Your task to perform on an android device: install app "LiveIn - Share Your Moment" Image 0: 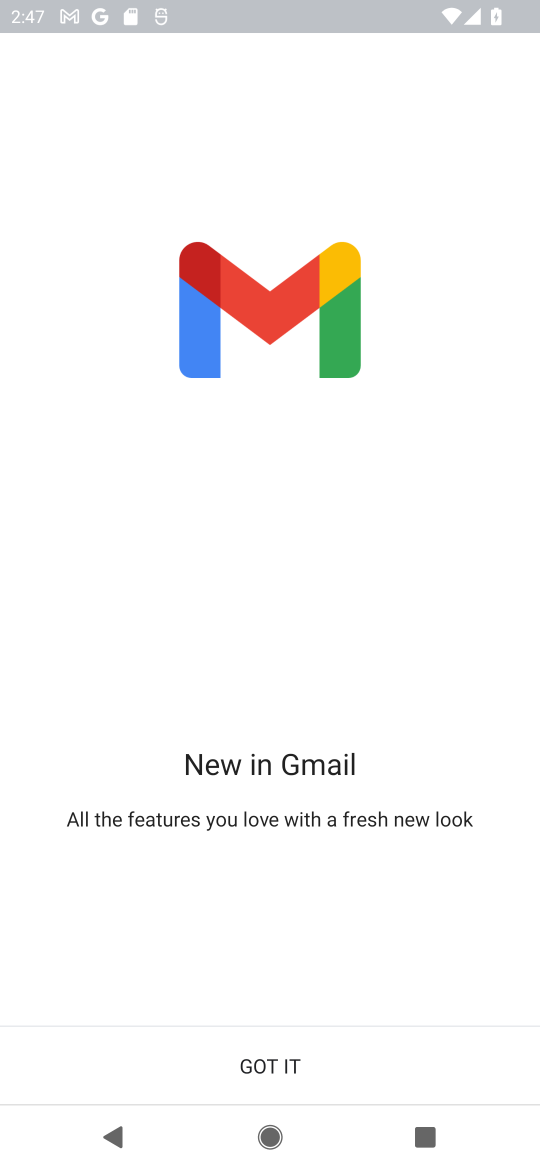
Step 0: press home button
Your task to perform on an android device: install app "LiveIn - Share Your Moment" Image 1: 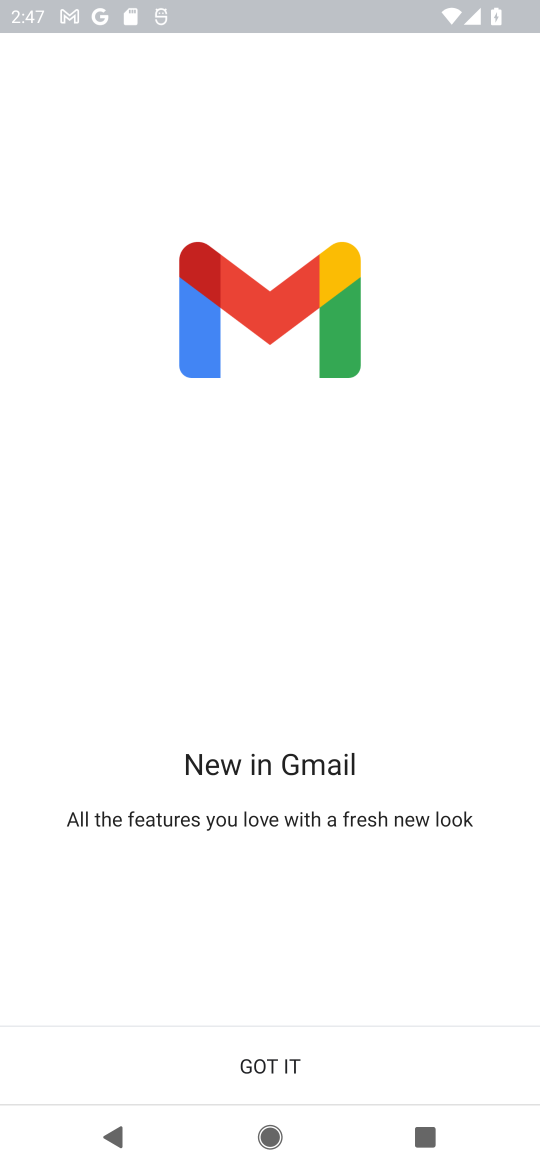
Step 1: press home button
Your task to perform on an android device: install app "LiveIn - Share Your Moment" Image 2: 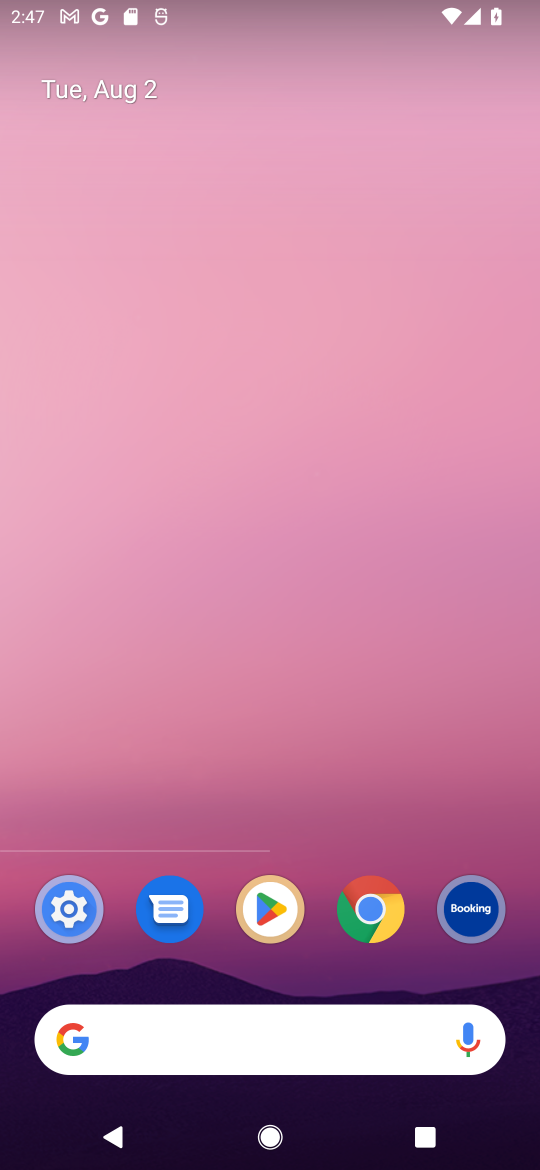
Step 2: drag from (264, 949) to (358, 247)
Your task to perform on an android device: install app "LiveIn - Share Your Moment" Image 3: 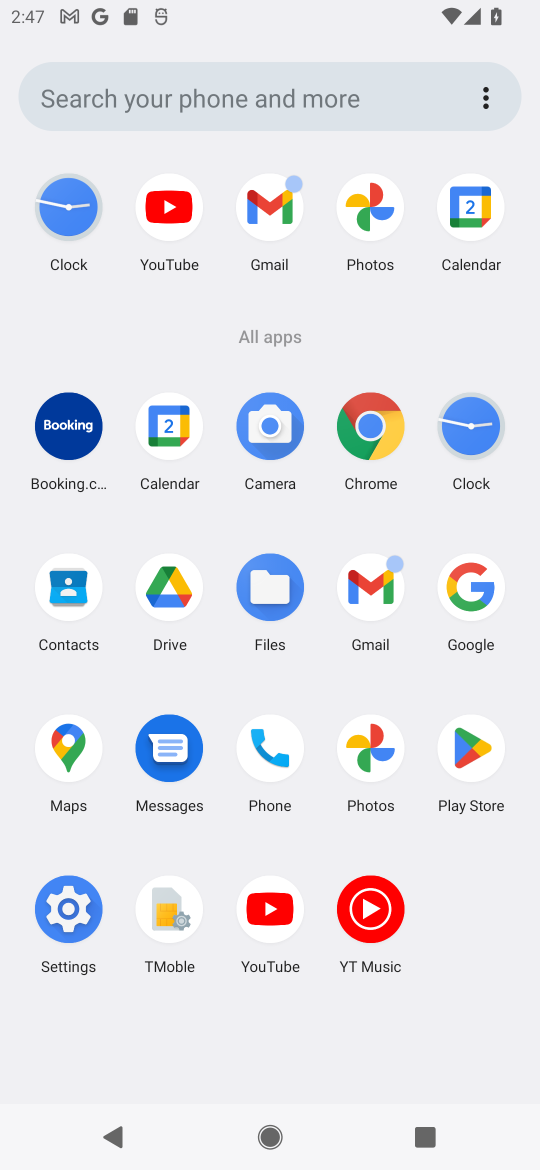
Step 3: click (478, 739)
Your task to perform on an android device: install app "LiveIn - Share Your Moment" Image 4: 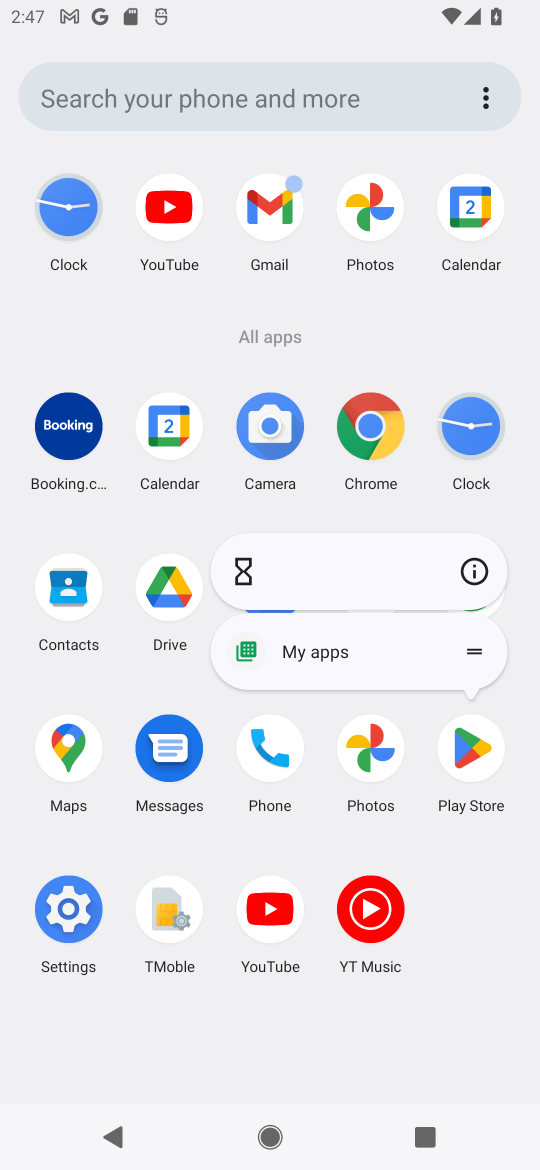
Step 4: click (462, 573)
Your task to perform on an android device: install app "LiveIn - Share Your Moment" Image 5: 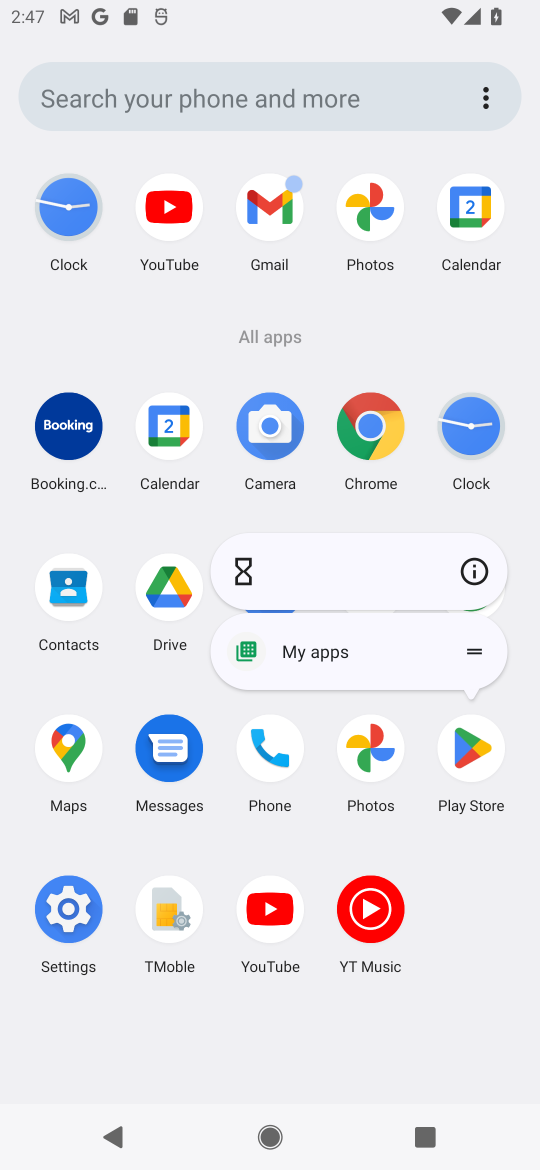
Step 5: click (478, 568)
Your task to perform on an android device: install app "LiveIn - Share Your Moment" Image 6: 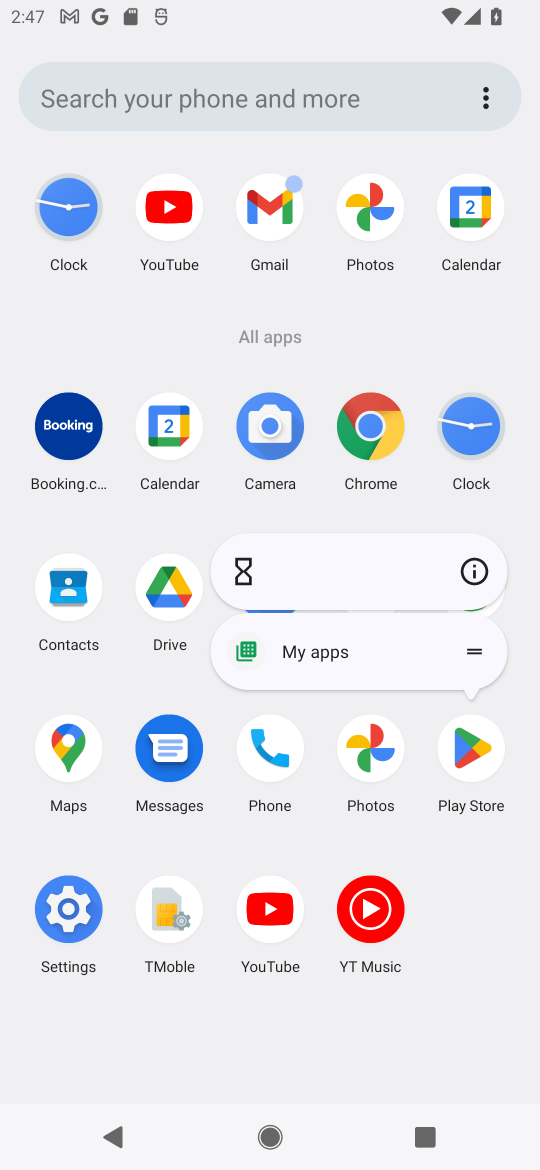
Step 6: click (462, 555)
Your task to perform on an android device: install app "LiveIn - Share Your Moment" Image 7: 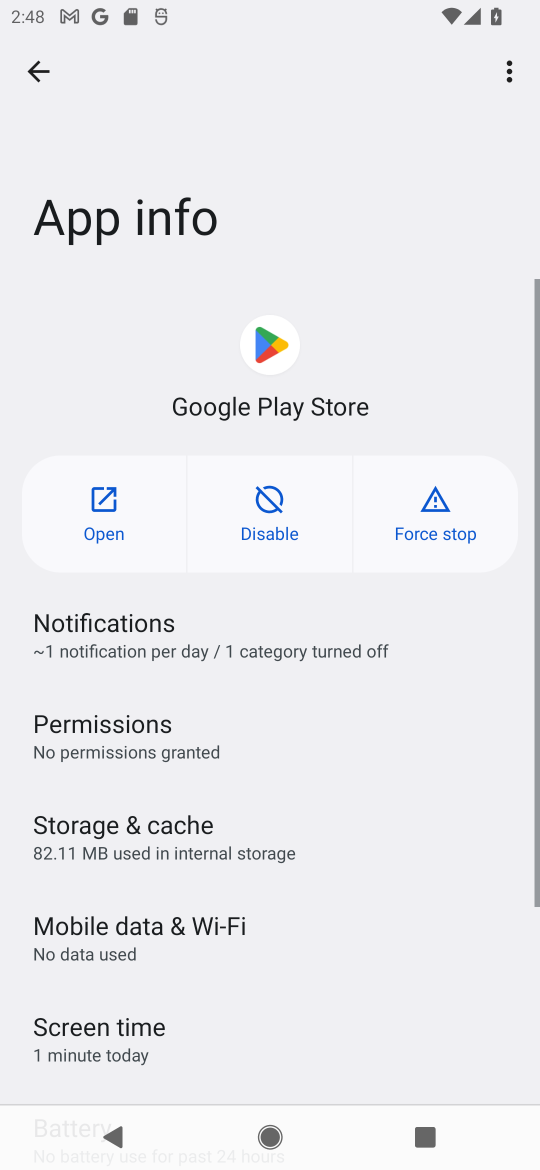
Step 7: click (85, 499)
Your task to perform on an android device: install app "LiveIn - Share Your Moment" Image 8: 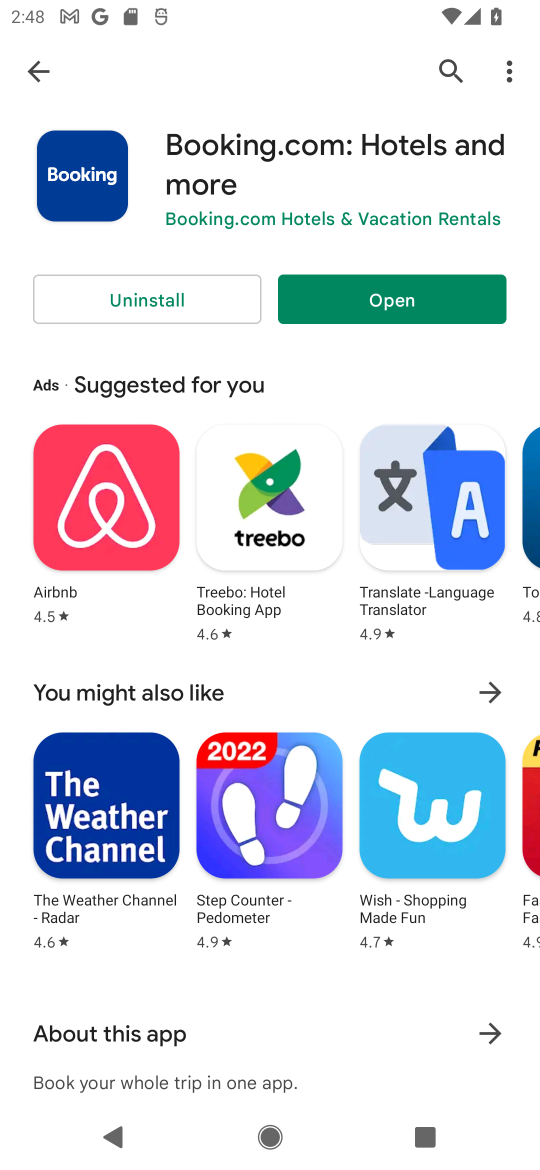
Step 8: click (445, 61)
Your task to perform on an android device: install app "LiveIn - Share Your Moment" Image 9: 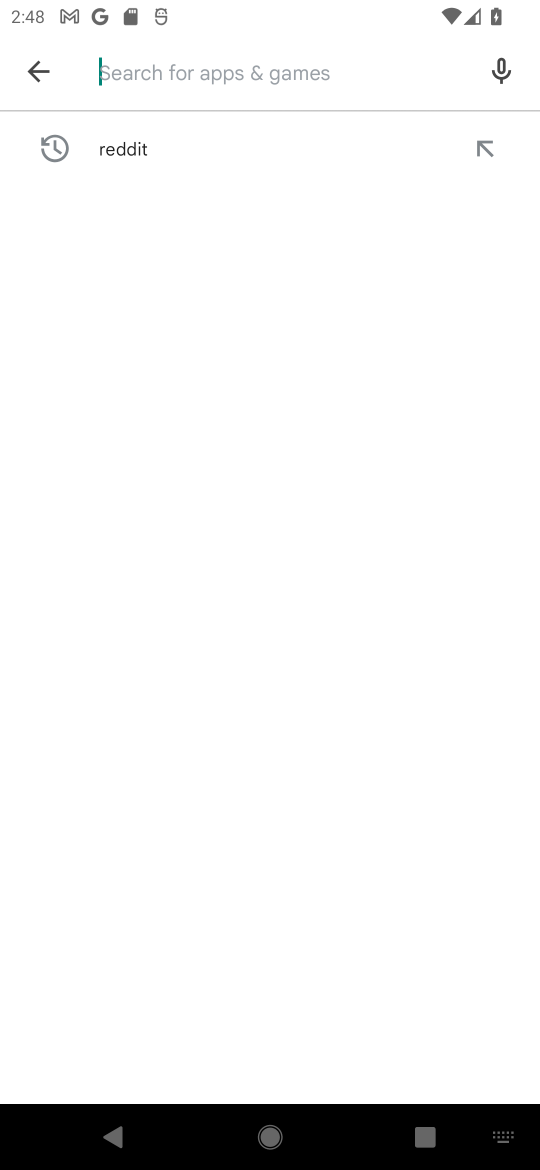
Step 9: type "LiveIn - Share Your Moment"
Your task to perform on an android device: install app "LiveIn - Share Your Moment" Image 10: 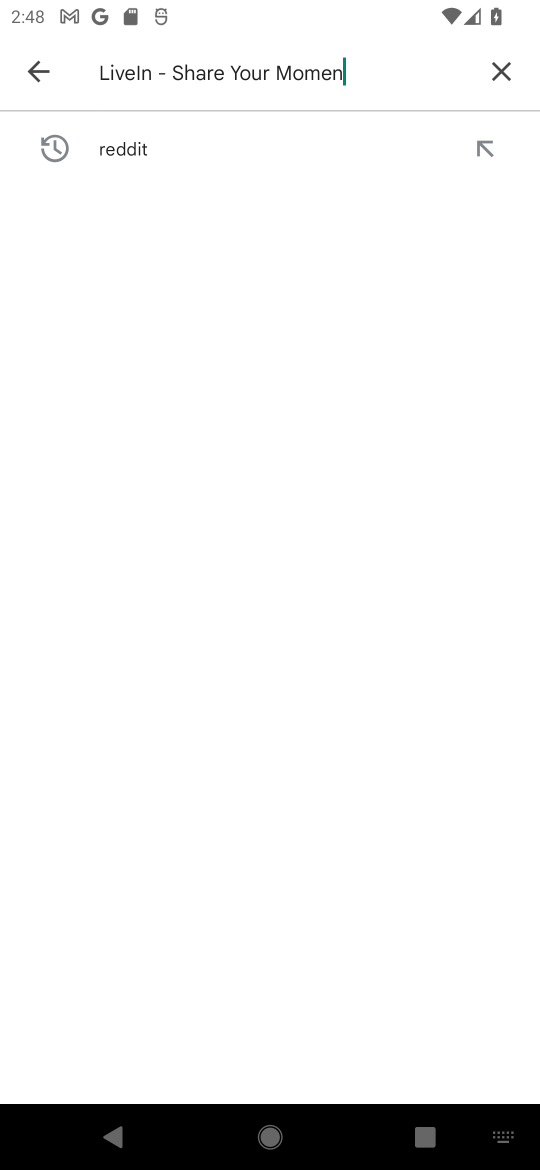
Step 10: type ""
Your task to perform on an android device: install app "LiveIn - Share Your Moment" Image 11: 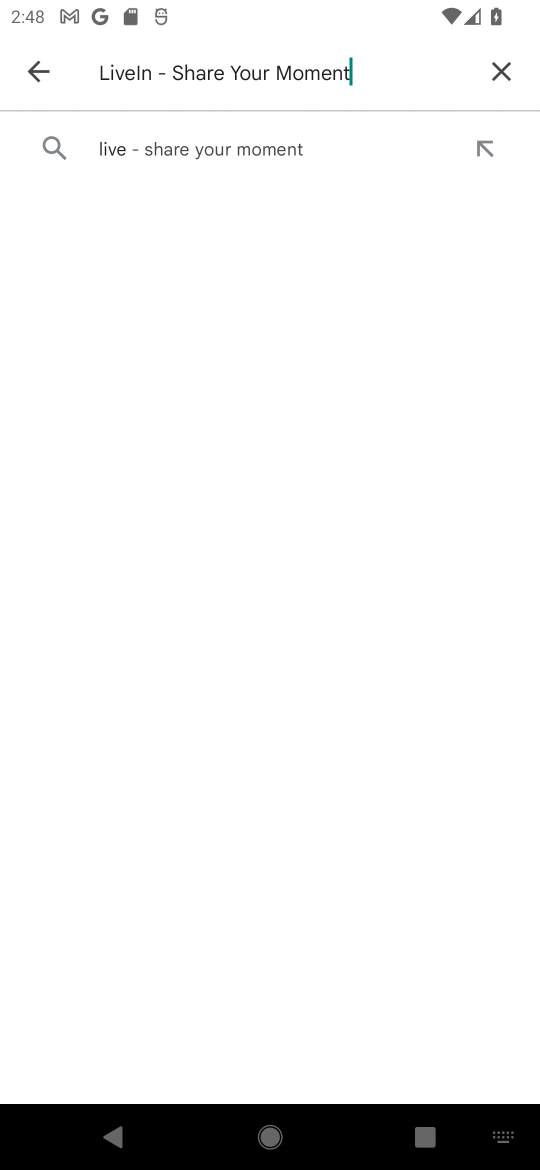
Step 11: click (219, 168)
Your task to perform on an android device: install app "LiveIn - Share Your Moment" Image 12: 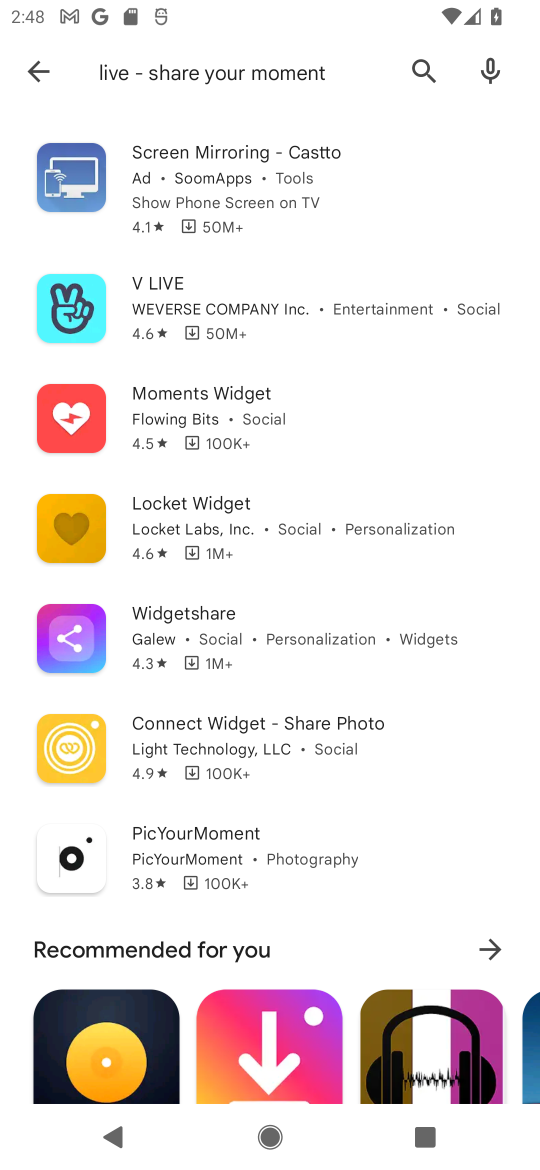
Step 12: task complete